Your task to perform on an android device: toggle notifications settings in the gmail app Image 0: 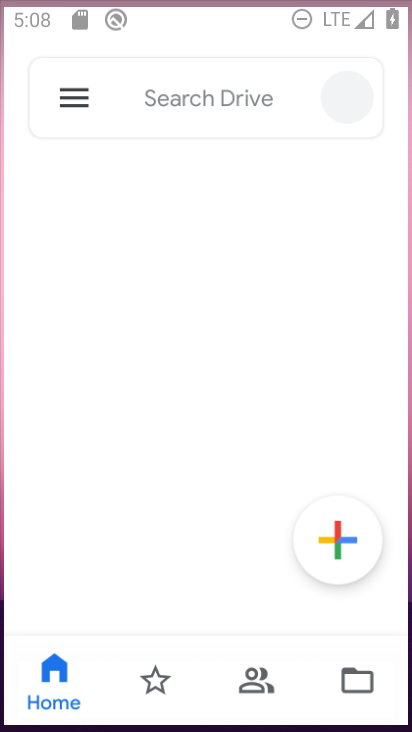
Step 0: press home button
Your task to perform on an android device: toggle notifications settings in the gmail app Image 1: 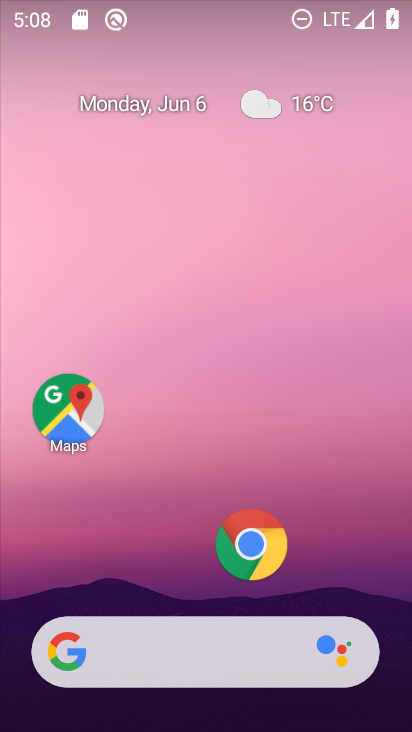
Step 1: drag from (194, 591) to (215, 24)
Your task to perform on an android device: toggle notifications settings in the gmail app Image 2: 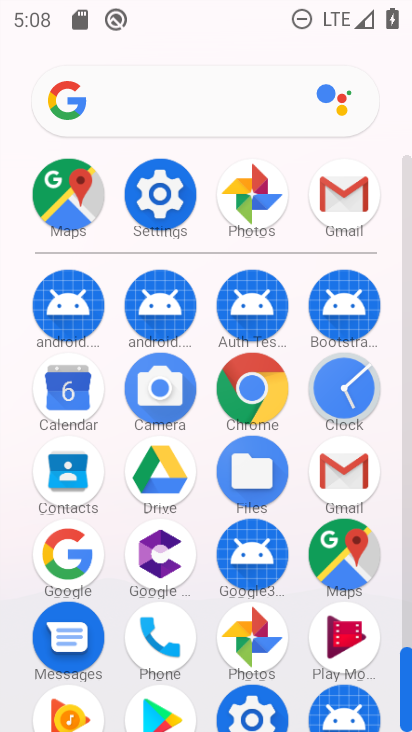
Step 2: click (342, 461)
Your task to perform on an android device: toggle notifications settings in the gmail app Image 3: 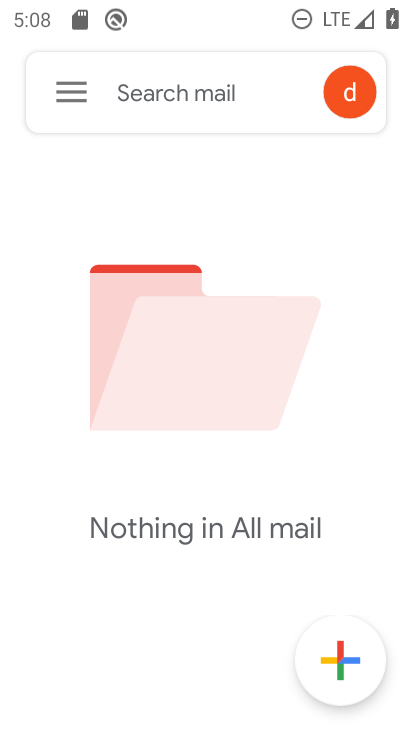
Step 3: click (77, 94)
Your task to perform on an android device: toggle notifications settings in the gmail app Image 4: 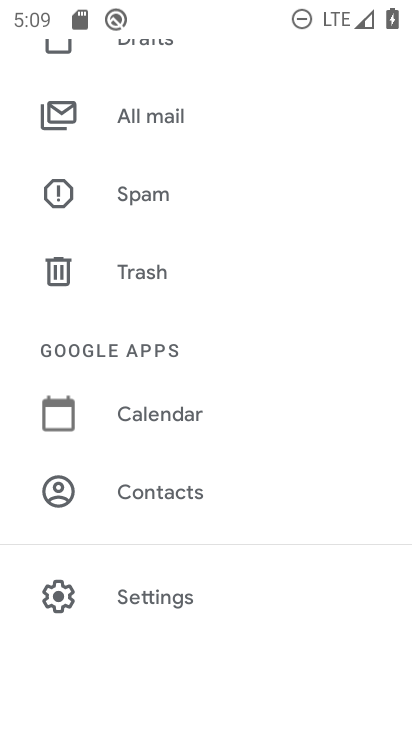
Step 4: click (213, 591)
Your task to perform on an android device: toggle notifications settings in the gmail app Image 5: 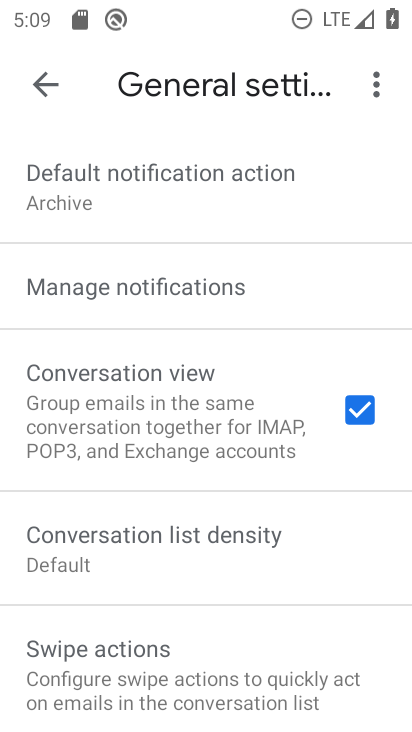
Step 5: click (264, 282)
Your task to perform on an android device: toggle notifications settings in the gmail app Image 6: 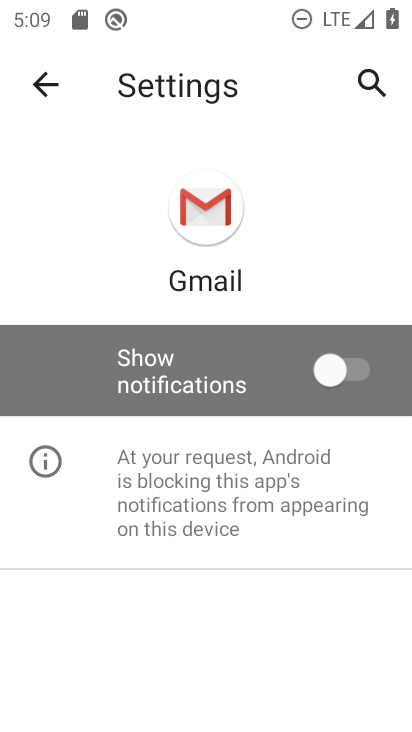
Step 6: click (350, 363)
Your task to perform on an android device: toggle notifications settings in the gmail app Image 7: 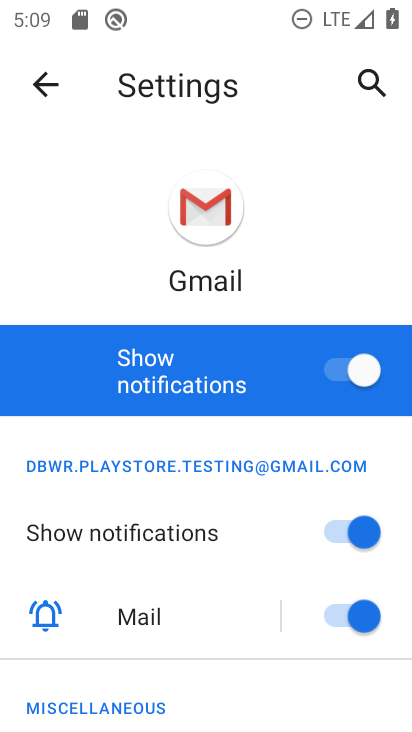
Step 7: task complete